Your task to perform on an android device: Open the web browser Image 0: 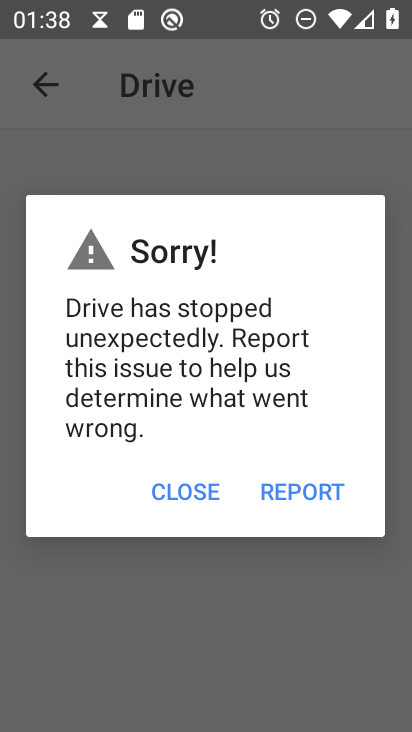
Step 0: press home button
Your task to perform on an android device: Open the web browser Image 1: 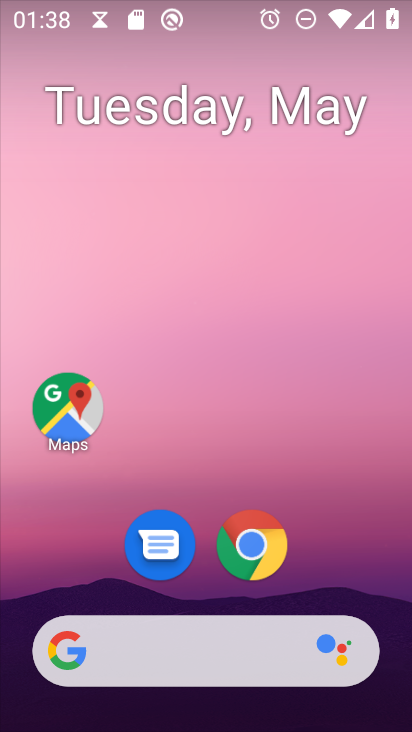
Step 1: click (245, 542)
Your task to perform on an android device: Open the web browser Image 2: 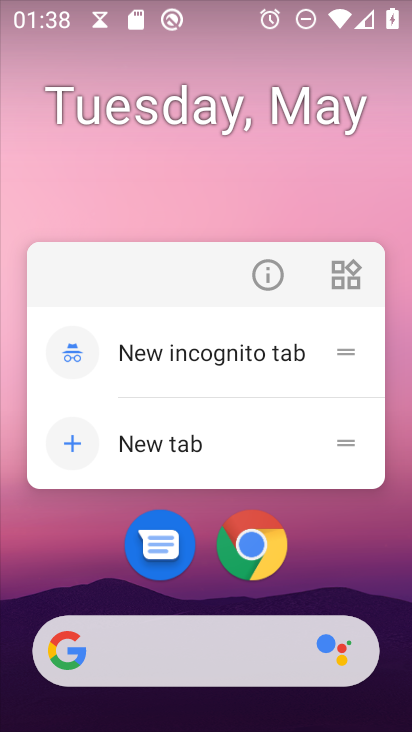
Step 2: click (246, 541)
Your task to perform on an android device: Open the web browser Image 3: 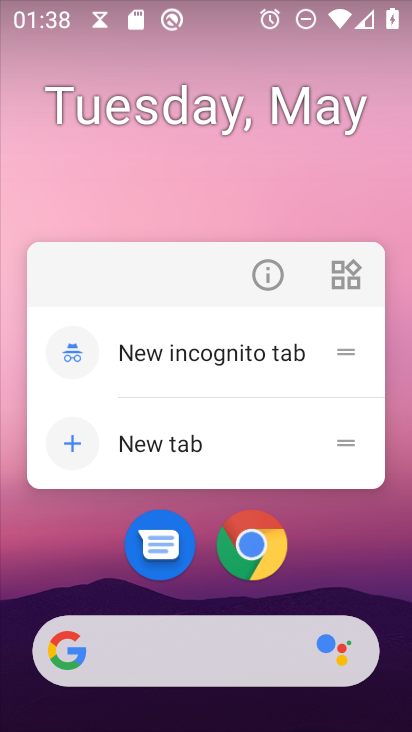
Step 3: click (246, 541)
Your task to perform on an android device: Open the web browser Image 4: 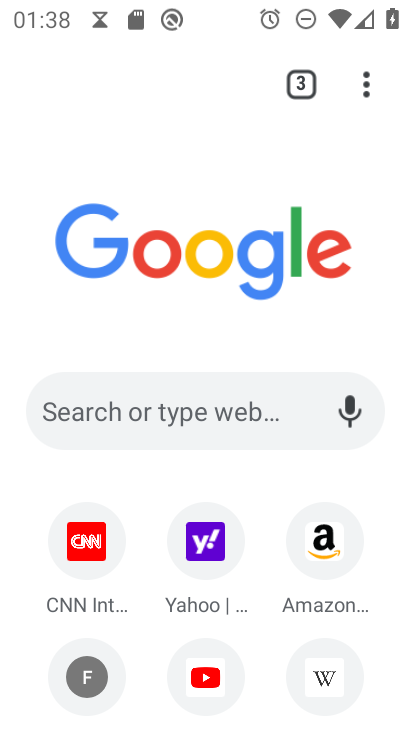
Step 4: task complete